Your task to perform on an android device: turn pop-ups on in chrome Image 0: 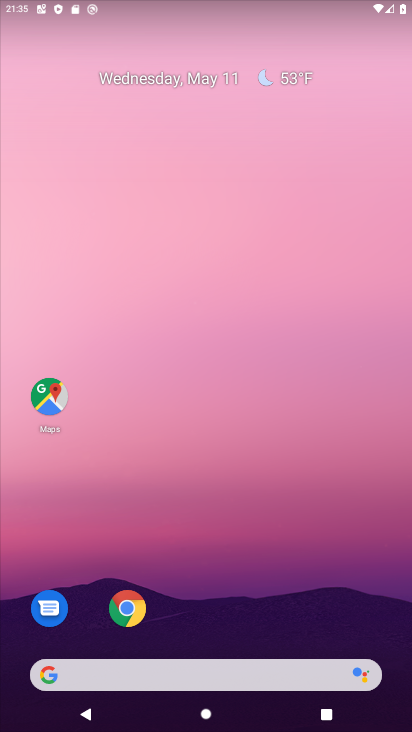
Step 0: click (139, 619)
Your task to perform on an android device: turn pop-ups on in chrome Image 1: 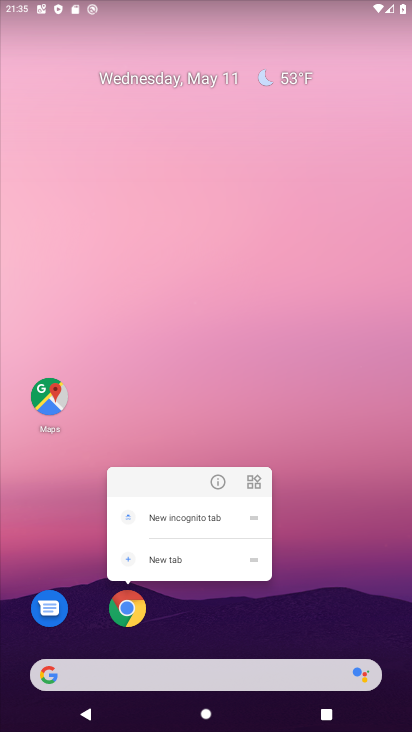
Step 1: click (129, 607)
Your task to perform on an android device: turn pop-ups on in chrome Image 2: 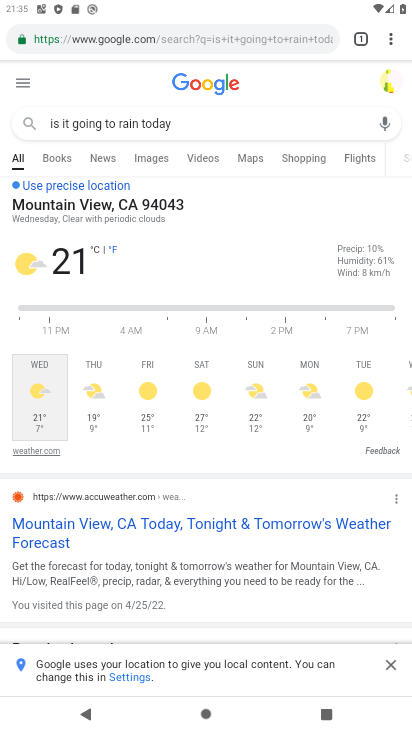
Step 2: drag from (388, 46) to (273, 442)
Your task to perform on an android device: turn pop-ups on in chrome Image 3: 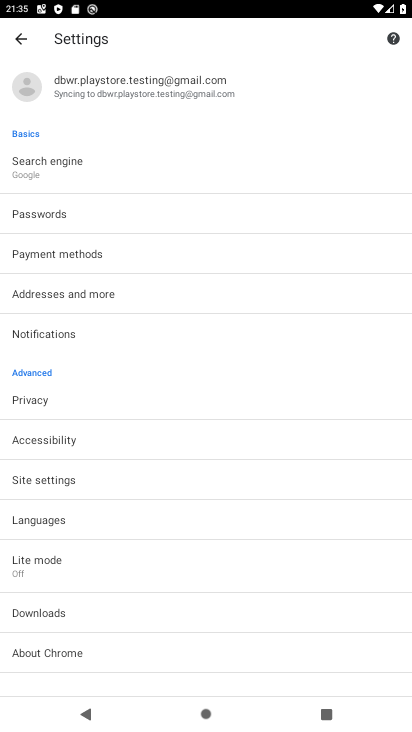
Step 3: click (58, 478)
Your task to perform on an android device: turn pop-ups on in chrome Image 4: 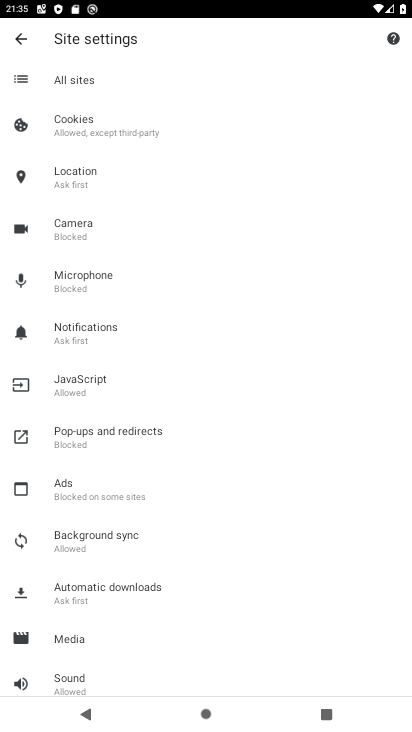
Step 4: click (113, 440)
Your task to perform on an android device: turn pop-ups on in chrome Image 5: 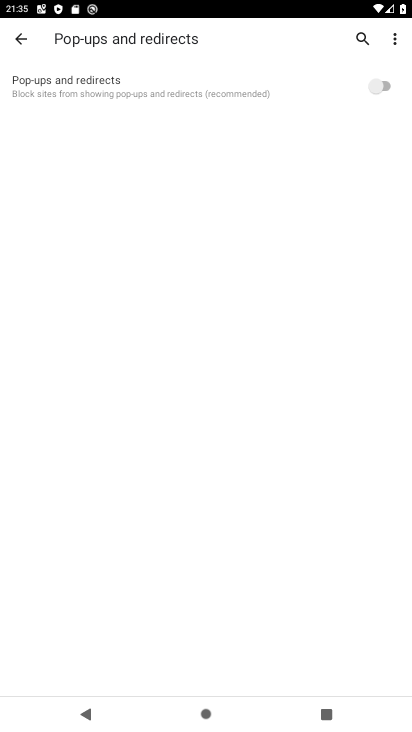
Step 5: click (380, 88)
Your task to perform on an android device: turn pop-ups on in chrome Image 6: 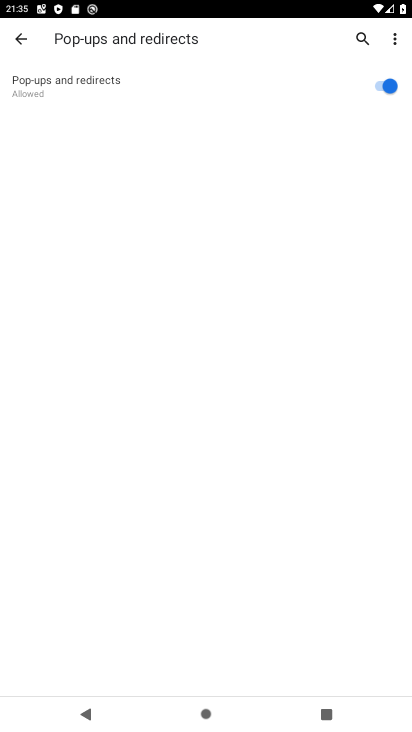
Step 6: task complete